Your task to perform on an android device: Search for Mexican restaurants on Maps Image 0: 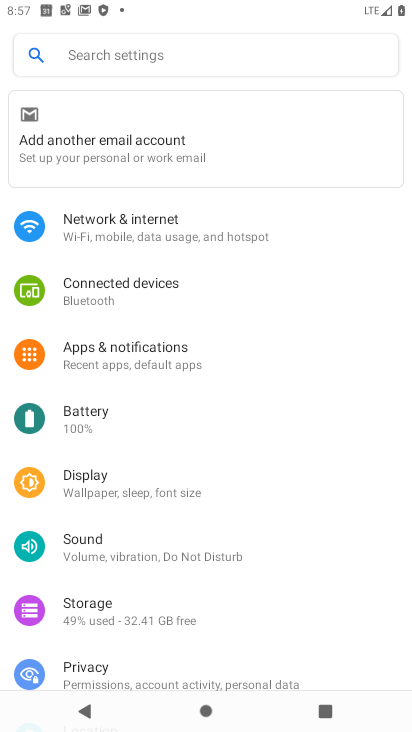
Step 0: press home button
Your task to perform on an android device: Search for Mexican restaurants on Maps Image 1: 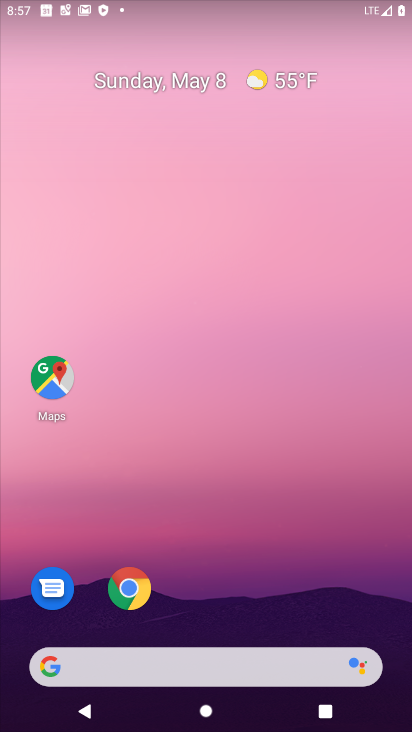
Step 1: drag from (313, 597) to (262, 54)
Your task to perform on an android device: Search for Mexican restaurants on Maps Image 2: 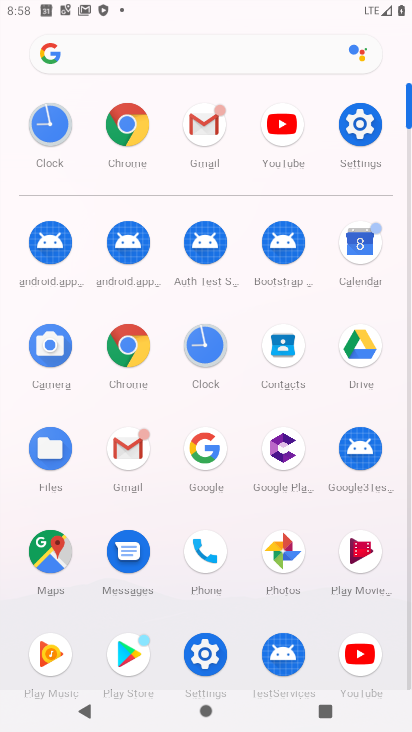
Step 2: click (54, 565)
Your task to perform on an android device: Search for Mexican restaurants on Maps Image 3: 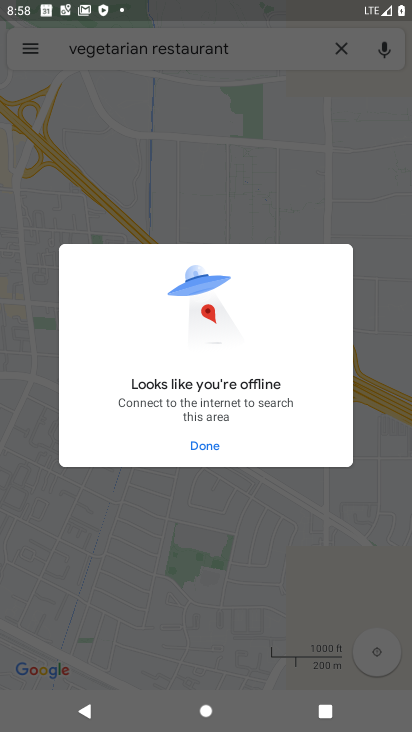
Step 3: click (209, 465)
Your task to perform on an android device: Search for Mexican restaurants on Maps Image 4: 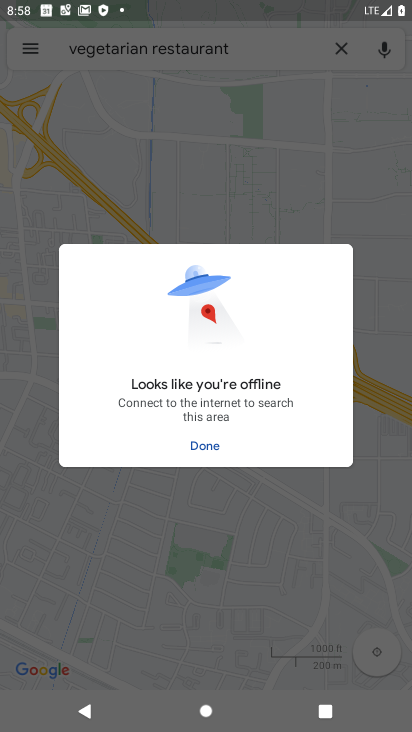
Step 4: click (211, 452)
Your task to perform on an android device: Search for Mexican restaurants on Maps Image 5: 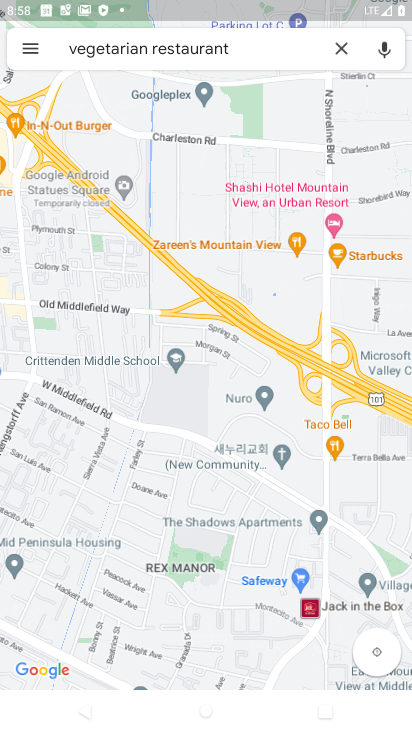
Step 5: click (337, 52)
Your task to perform on an android device: Search for Mexican restaurants on Maps Image 6: 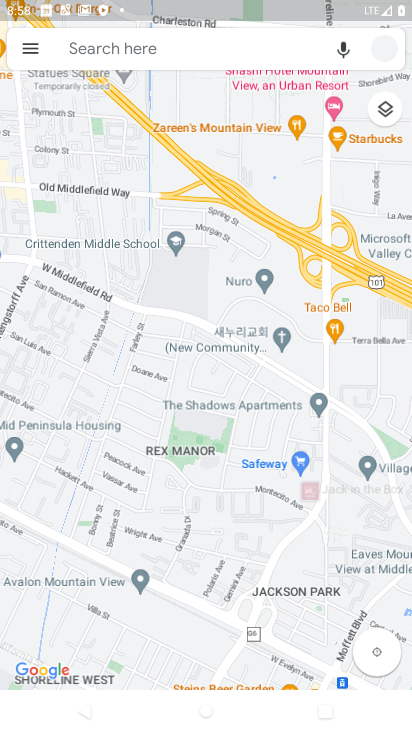
Step 6: click (228, 45)
Your task to perform on an android device: Search for Mexican restaurants on Maps Image 7: 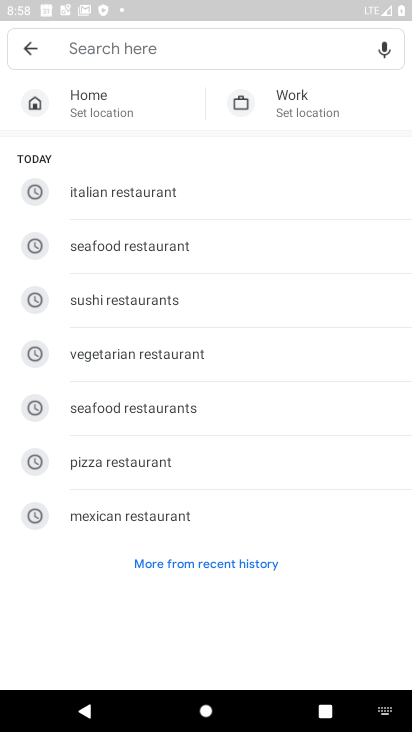
Step 7: click (137, 514)
Your task to perform on an android device: Search for Mexican restaurants on Maps Image 8: 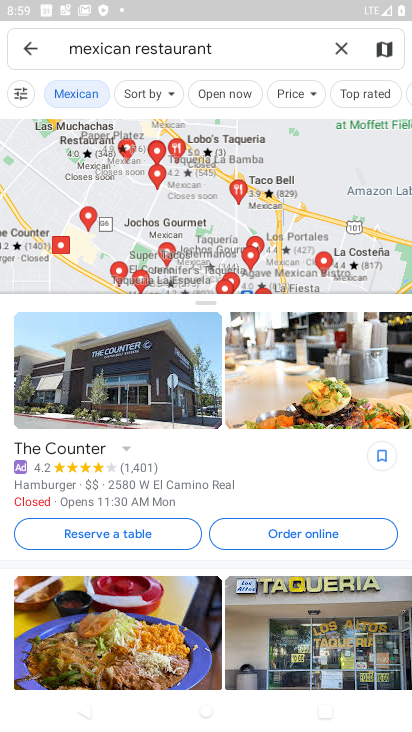
Step 8: task complete